Your task to perform on an android device: Go to privacy settings Image 0: 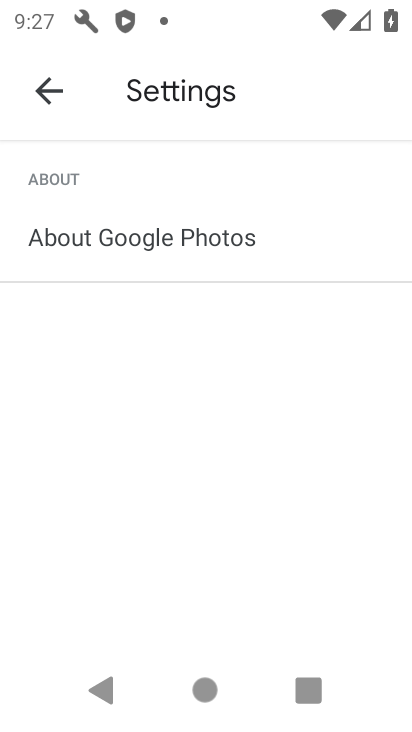
Step 0: click (33, 106)
Your task to perform on an android device: Go to privacy settings Image 1: 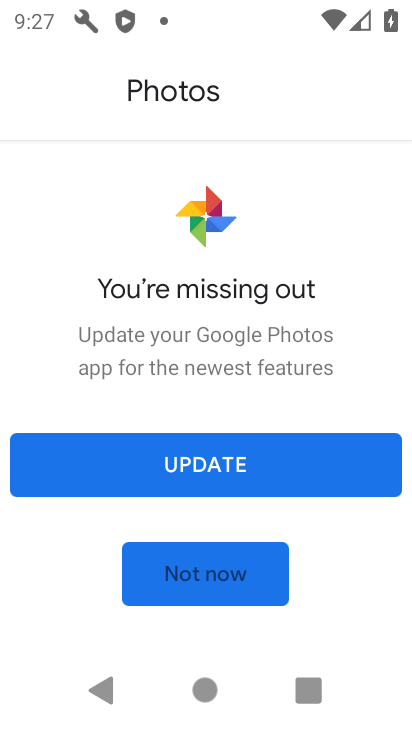
Step 1: press back button
Your task to perform on an android device: Go to privacy settings Image 2: 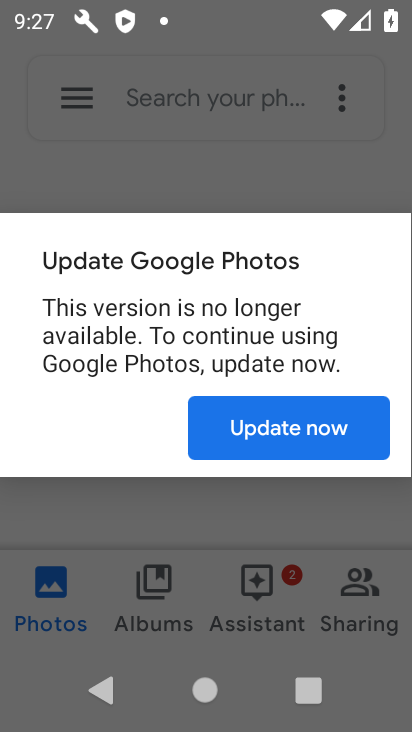
Step 2: press home button
Your task to perform on an android device: Go to privacy settings Image 3: 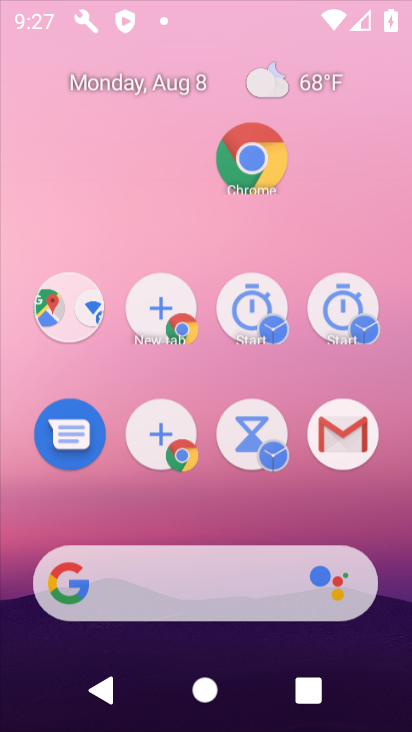
Step 3: click (161, 146)
Your task to perform on an android device: Go to privacy settings Image 4: 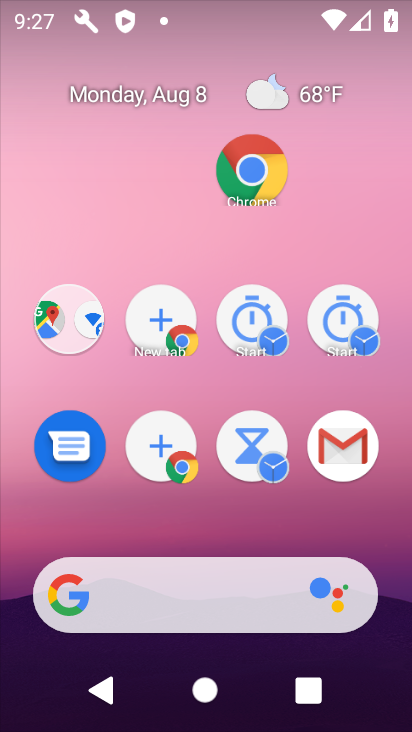
Step 4: drag from (212, 293) to (210, 199)
Your task to perform on an android device: Go to privacy settings Image 5: 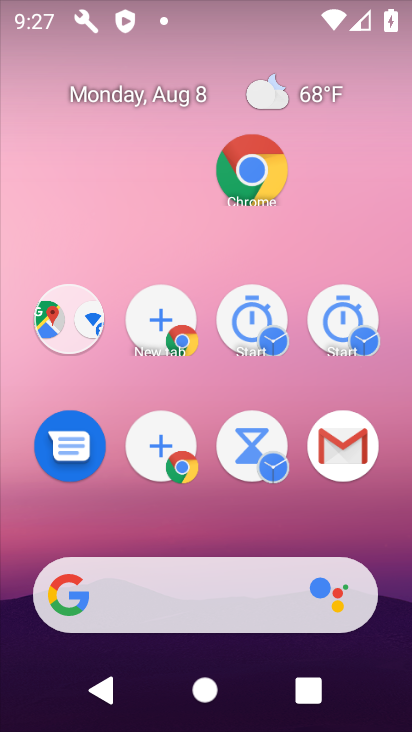
Step 5: drag from (208, 538) to (208, 166)
Your task to perform on an android device: Go to privacy settings Image 6: 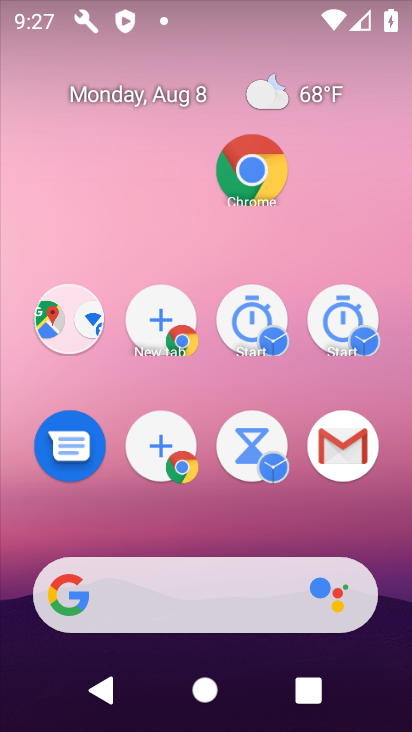
Step 6: drag from (264, 488) to (264, 146)
Your task to perform on an android device: Go to privacy settings Image 7: 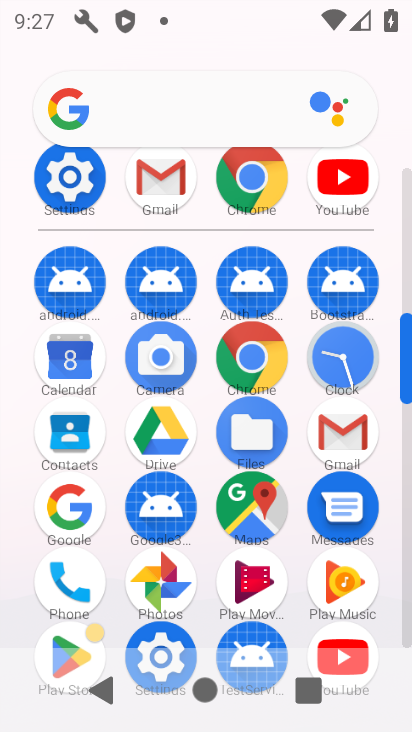
Step 7: click (50, 178)
Your task to perform on an android device: Go to privacy settings Image 8: 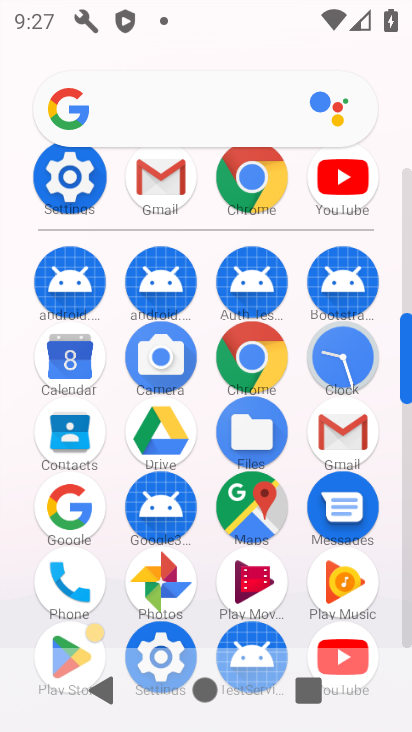
Step 8: click (58, 182)
Your task to perform on an android device: Go to privacy settings Image 9: 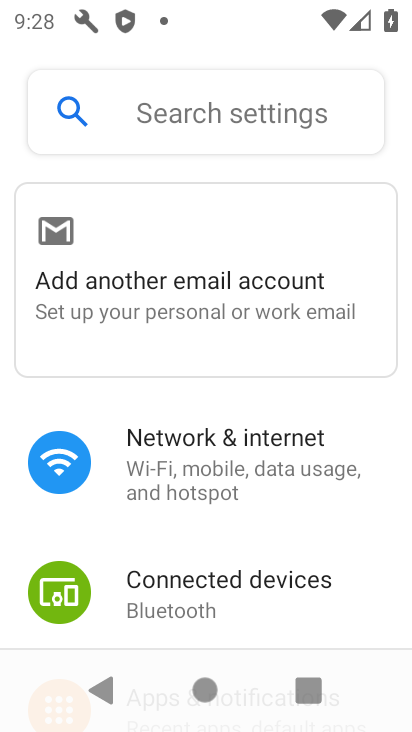
Step 9: drag from (218, 590) to (217, 350)
Your task to perform on an android device: Go to privacy settings Image 10: 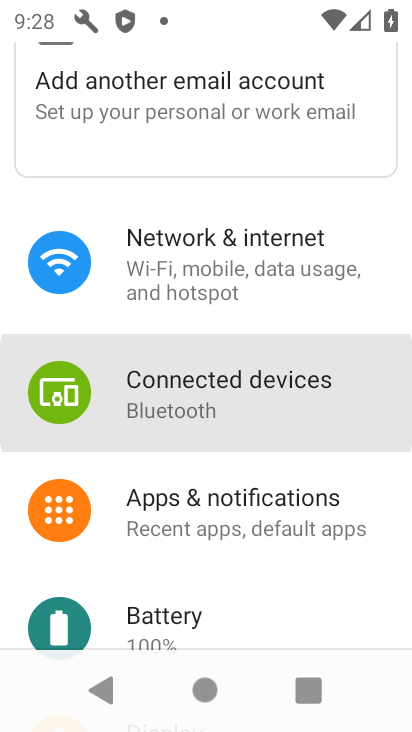
Step 10: drag from (181, 549) to (181, 379)
Your task to perform on an android device: Go to privacy settings Image 11: 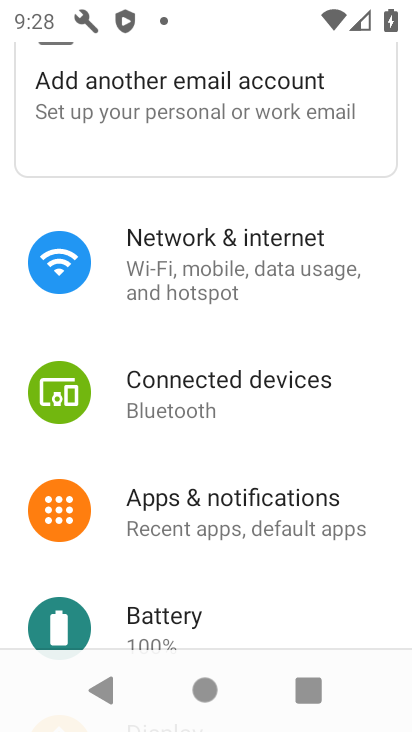
Step 11: drag from (191, 543) to (196, 370)
Your task to perform on an android device: Go to privacy settings Image 12: 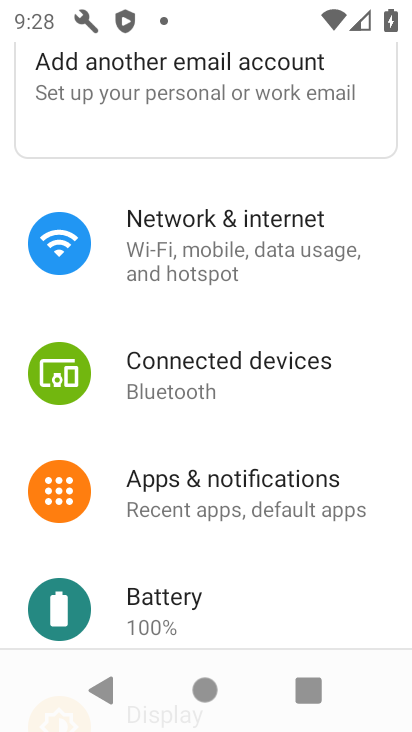
Step 12: drag from (207, 532) to (200, 155)
Your task to perform on an android device: Go to privacy settings Image 13: 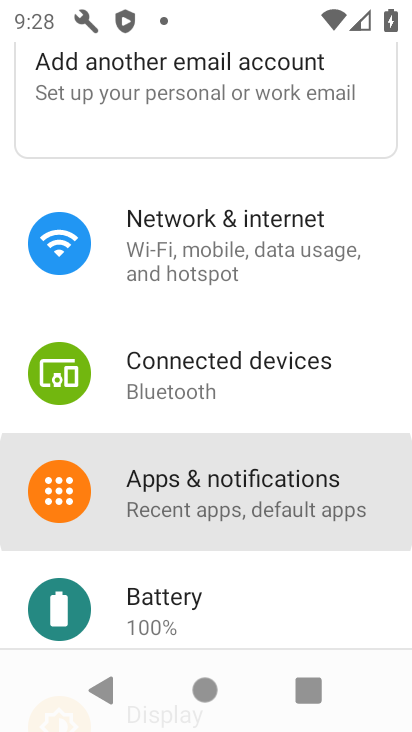
Step 13: drag from (220, 517) to (220, 314)
Your task to perform on an android device: Go to privacy settings Image 14: 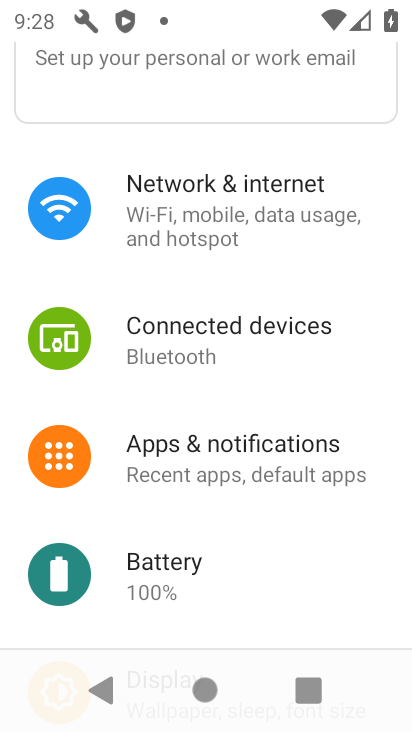
Step 14: drag from (221, 600) to (152, 301)
Your task to perform on an android device: Go to privacy settings Image 15: 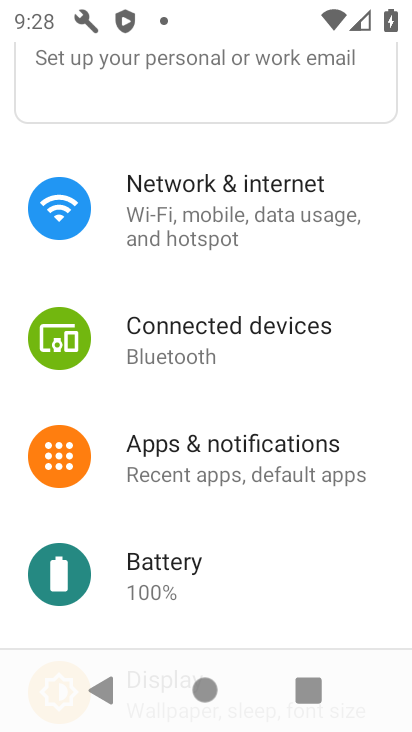
Step 15: drag from (191, 580) to (190, 320)
Your task to perform on an android device: Go to privacy settings Image 16: 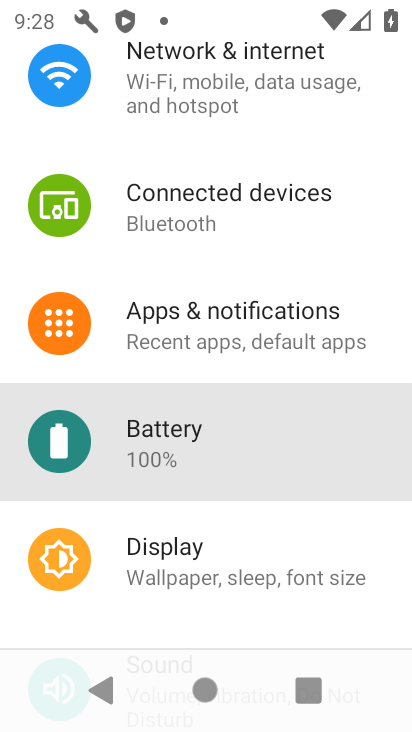
Step 16: drag from (209, 537) to (198, 241)
Your task to perform on an android device: Go to privacy settings Image 17: 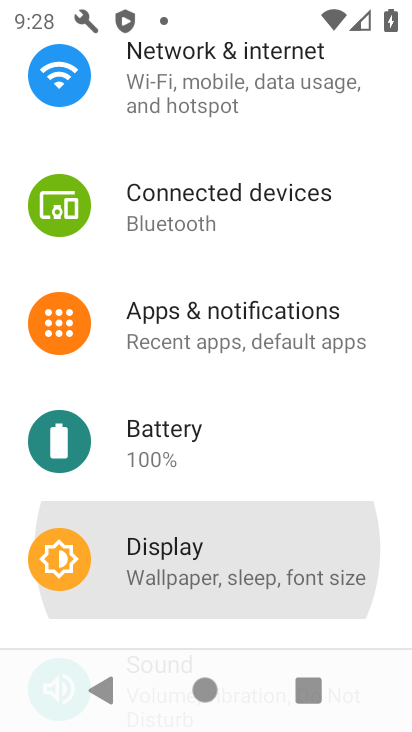
Step 17: drag from (170, 562) to (158, 231)
Your task to perform on an android device: Go to privacy settings Image 18: 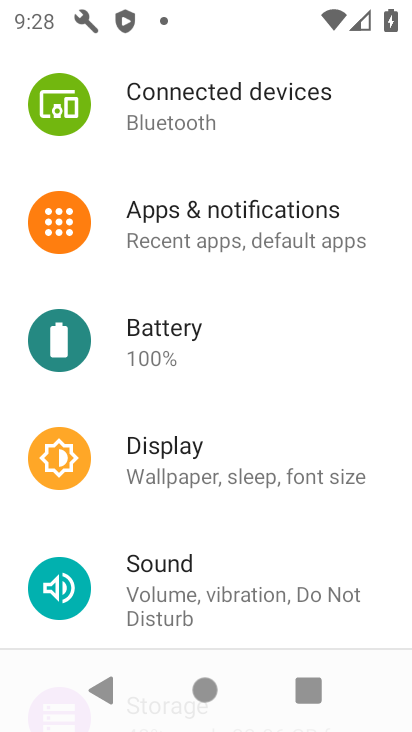
Step 18: drag from (186, 544) to (184, 266)
Your task to perform on an android device: Go to privacy settings Image 19: 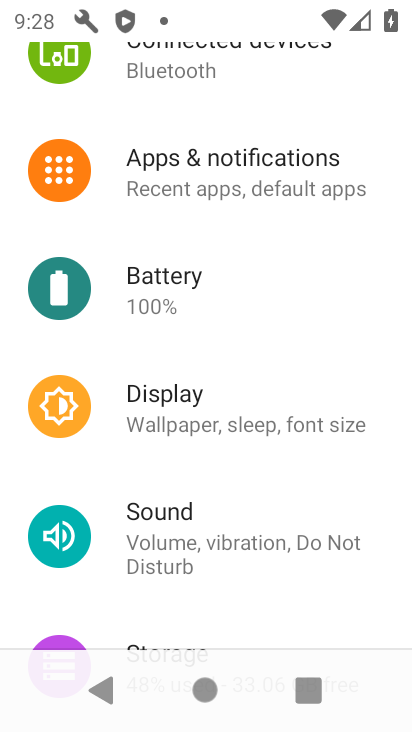
Step 19: drag from (213, 448) to (229, 170)
Your task to perform on an android device: Go to privacy settings Image 20: 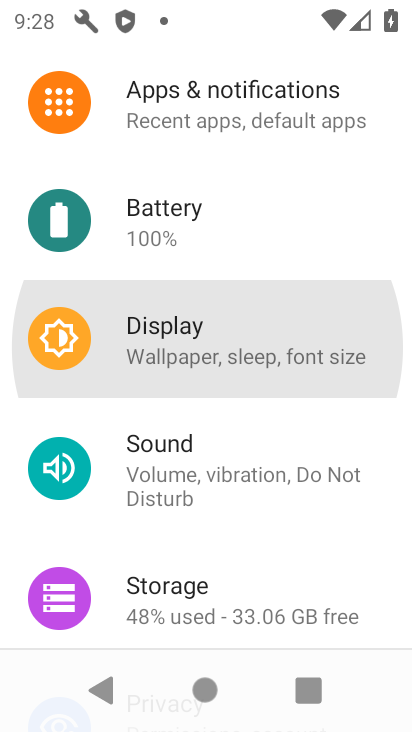
Step 20: drag from (285, 433) to (273, 161)
Your task to perform on an android device: Go to privacy settings Image 21: 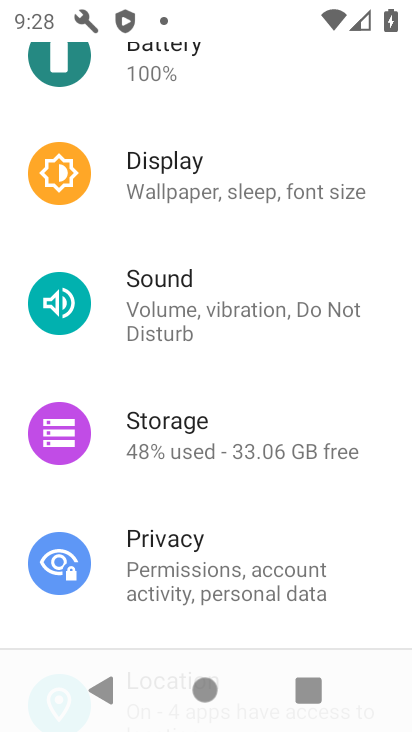
Step 21: click (161, 560)
Your task to perform on an android device: Go to privacy settings Image 22: 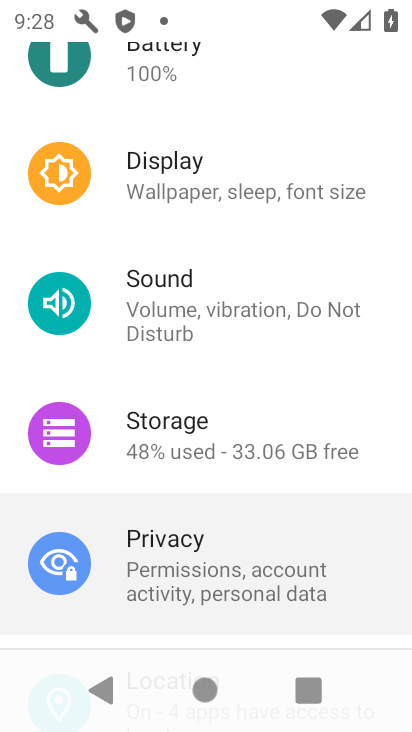
Step 22: click (162, 560)
Your task to perform on an android device: Go to privacy settings Image 23: 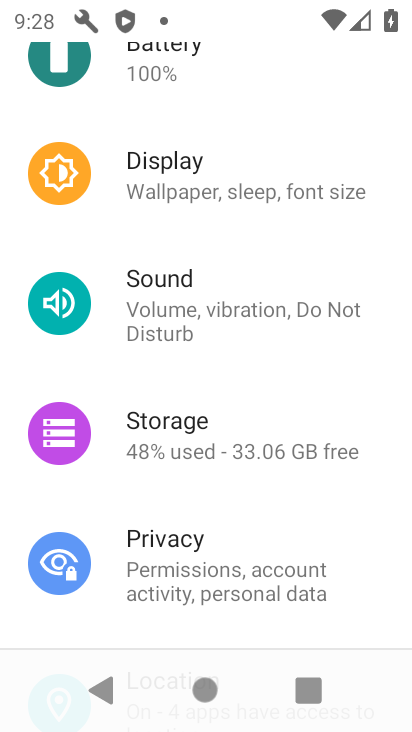
Step 23: click (163, 561)
Your task to perform on an android device: Go to privacy settings Image 24: 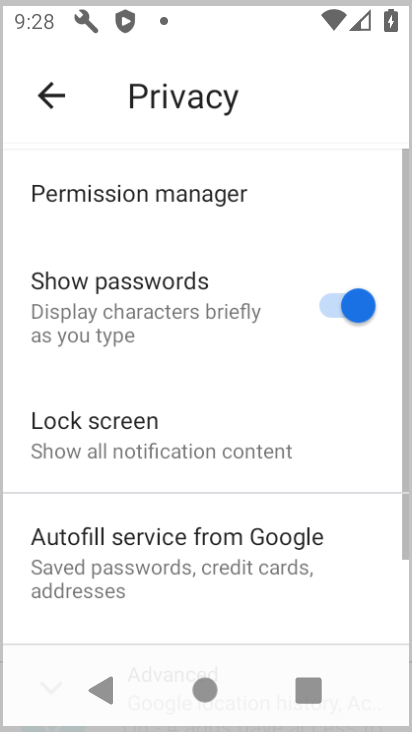
Step 24: click (169, 560)
Your task to perform on an android device: Go to privacy settings Image 25: 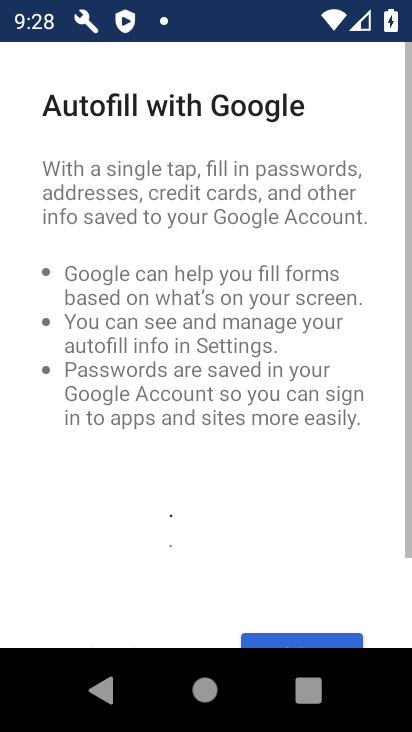
Step 25: task complete